Your task to perform on an android device: open a bookmark in the chrome app Image 0: 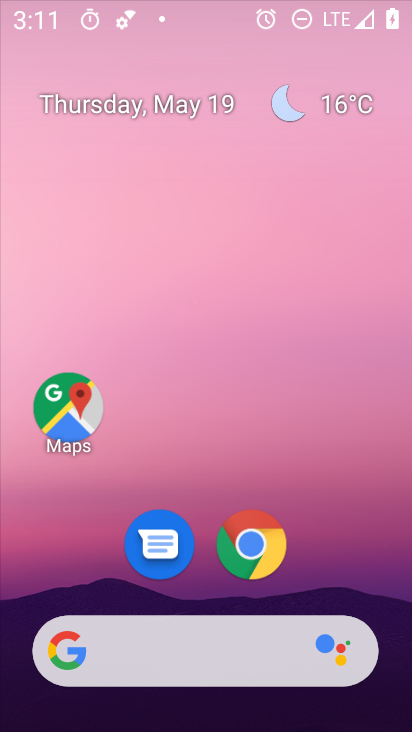
Step 0: drag from (306, 569) to (401, 94)
Your task to perform on an android device: open a bookmark in the chrome app Image 1: 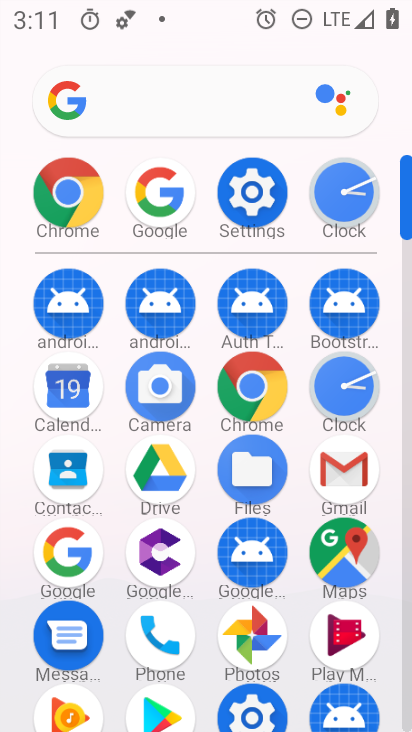
Step 1: click (87, 199)
Your task to perform on an android device: open a bookmark in the chrome app Image 2: 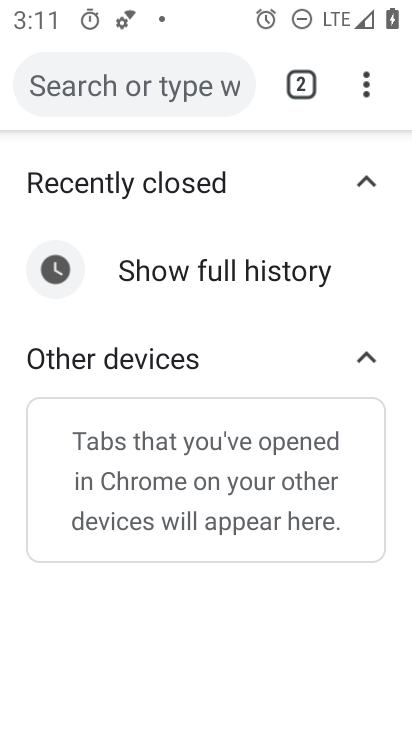
Step 2: click (387, 89)
Your task to perform on an android device: open a bookmark in the chrome app Image 3: 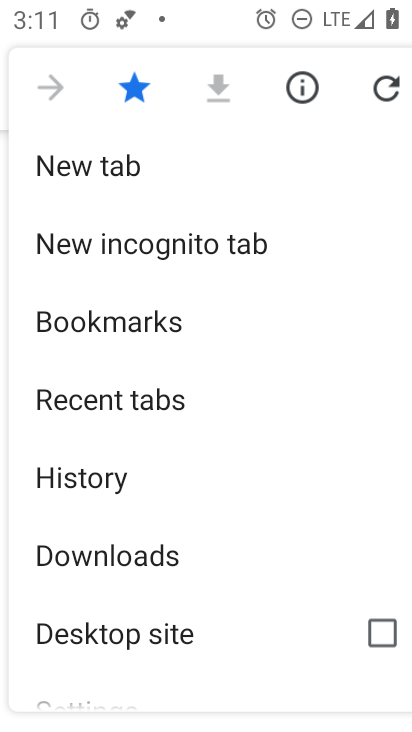
Step 3: click (197, 310)
Your task to perform on an android device: open a bookmark in the chrome app Image 4: 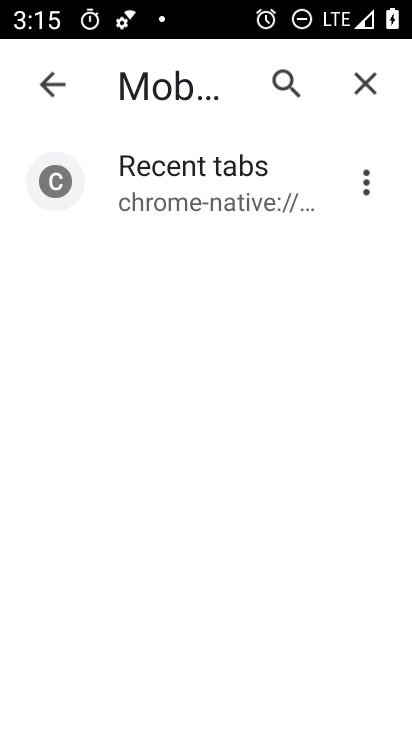
Step 4: task complete